Your task to perform on an android device: Turn on the flashlight Image 0: 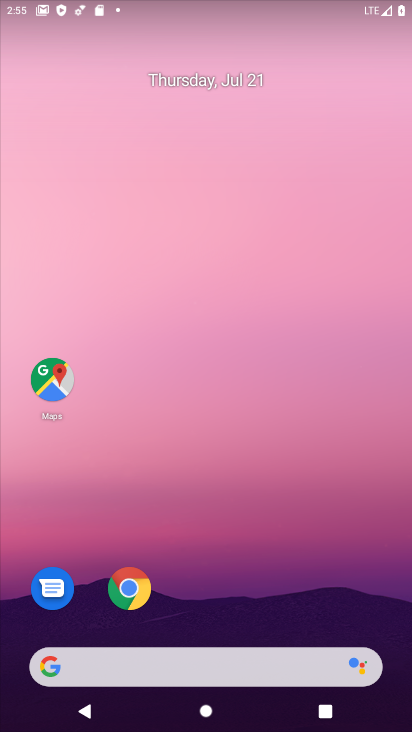
Step 0: drag from (298, 579) to (313, 94)
Your task to perform on an android device: Turn on the flashlight Image 1: 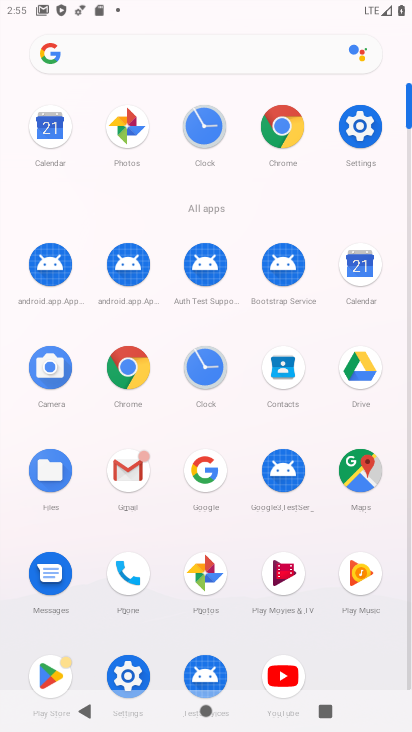
Step 1: click (359, 121)
Your task to perform on an android device: Turn on the flashlight Image 2: 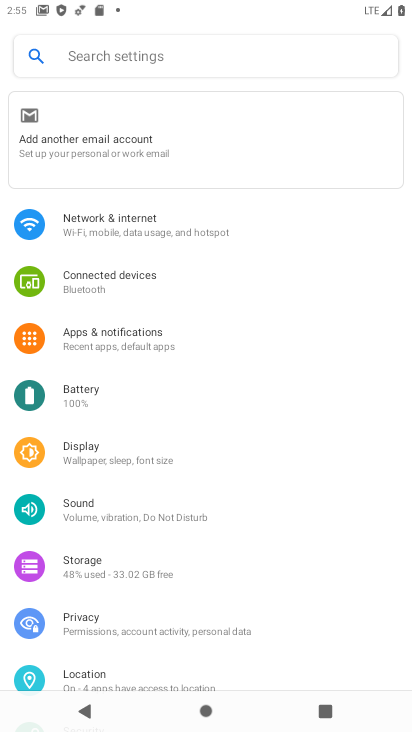
Step 2: task complete